Your task to perform on an android device: Open Google Chrome and open the bookmarks view Image 0: 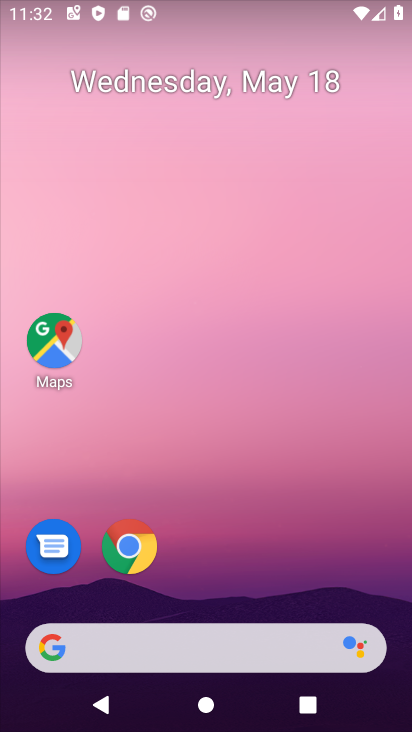
Step 0: click (137, 547)
Your task to perform on an android device: Open Google Chrome and open the bookmarks view Image 1: 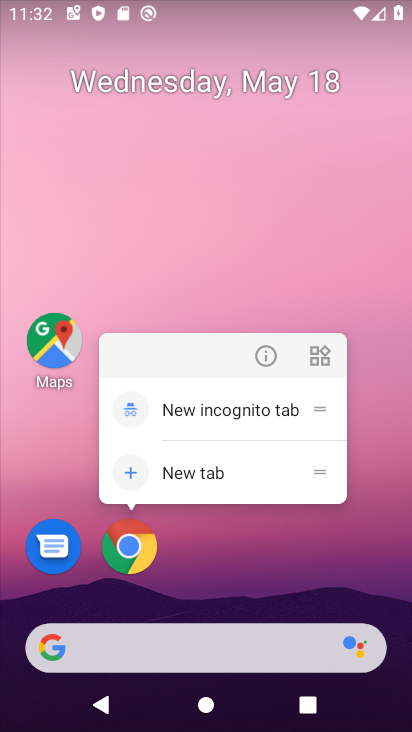
Step 1: click (131, 549)
Your task to perform on an android device: Open Google Chrome and open the bookmarks view Image 2: 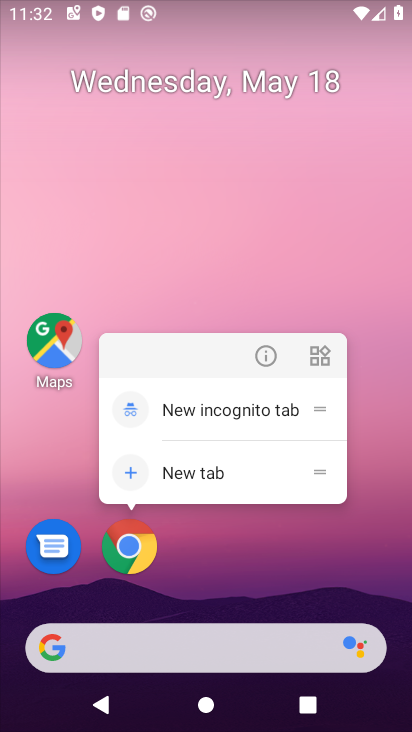
Step 2: click (132, 545)
Your task to perform on an android device: Open Google Chrome and open the bookmarks view Image 3: 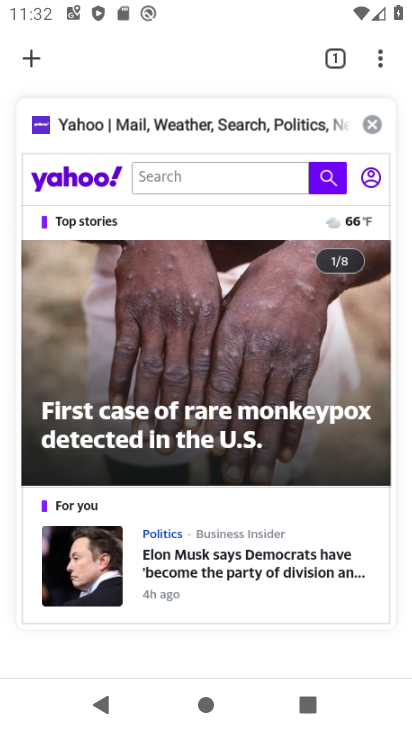
Step 3: press back button
Your task to perform on an android device: Open Google Chrome and open the bookmarks view Image 4: 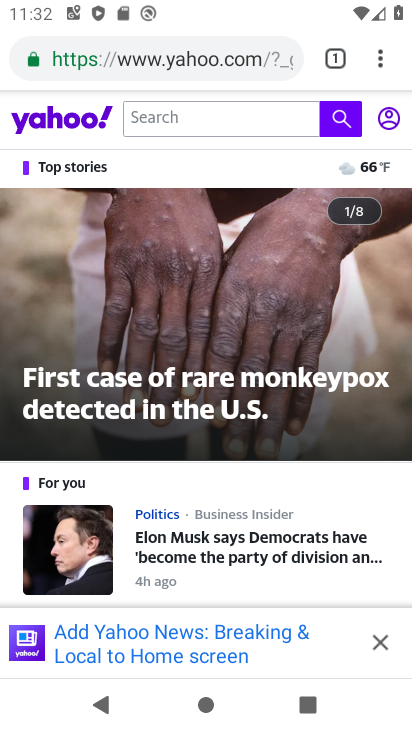
Step 4: click (377, 59)
Your task to perform on an android device: Open Google Chrome and open the bookmarks view Image 5: 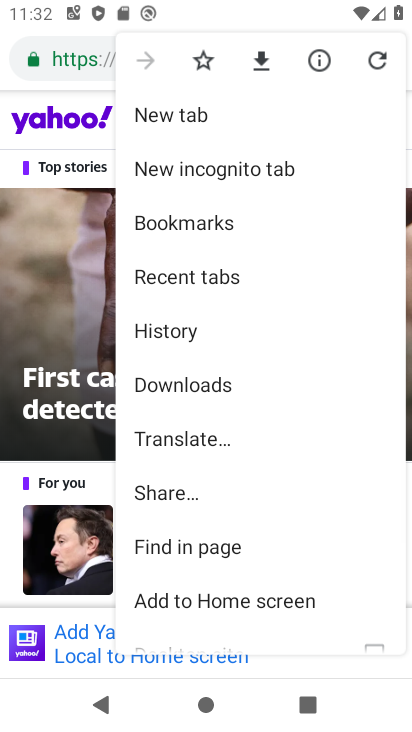
Step 5: click (235, 228)
Your task to perform on an android device: Open Google Chrome and open the bookmarks view Image 6: 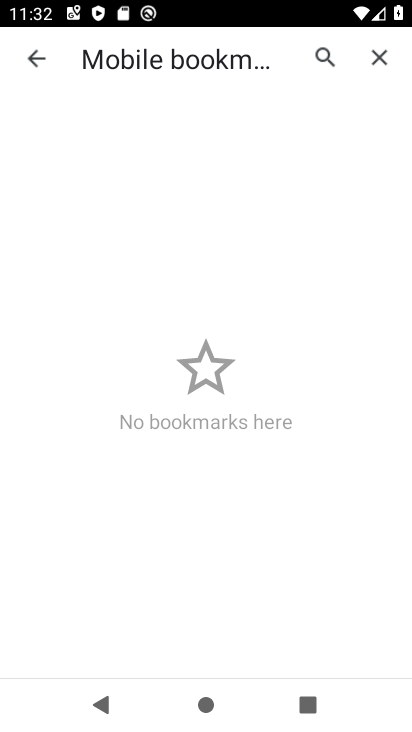
Step 6: task complete